Your task to perform on an android device: Search for the best vacuum on Amazon. Image 0: 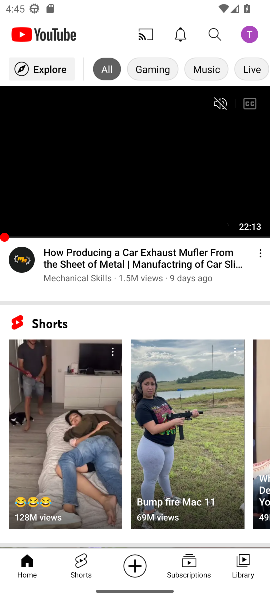
Step 0: press home button
Your task to perform on an android device: Search for the best vacuum on Amazon. Image 1: 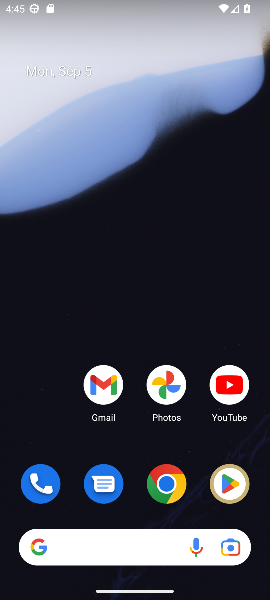
Step 1: click (174, 482)
Your task to perform on an android device: Search for the best vacuum on Amazon. Image 2: 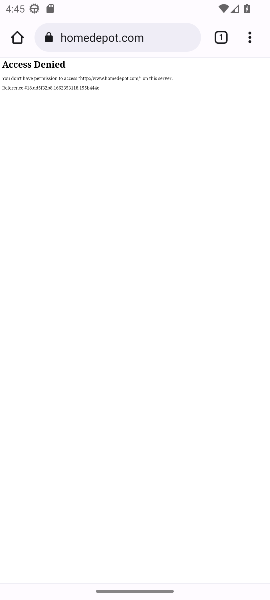
Step 2: click (158, 35)
Your task to perform on an android device: Search for the best vacuum on Amazon. Image 3: 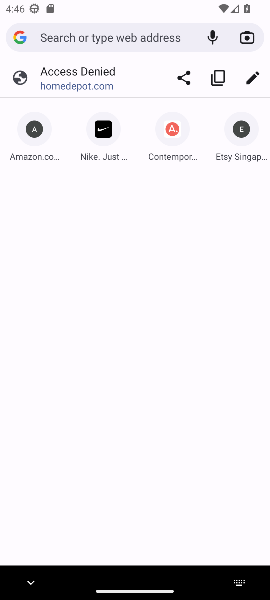
Step 3: type "Amazon"
Your task to perform on an android device: Search for the best vacuum on Amazon. Image 4: 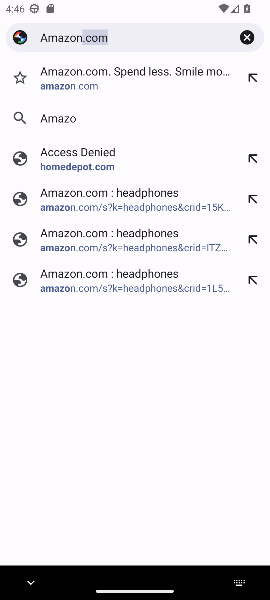
Step 4: press enter
Your task to perform on an android device: Search for the best vacuum on Amazon. Image 5: 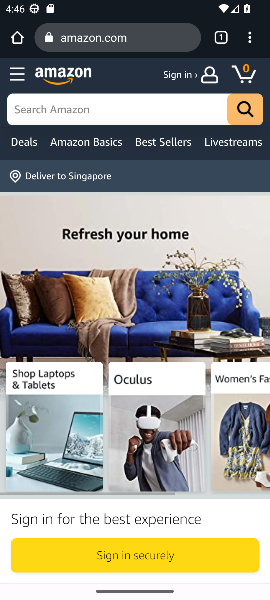
Step 5: click (99, 111)
Your task to perform on an android device: Search for the best vacuum on Amazon. Image 6: 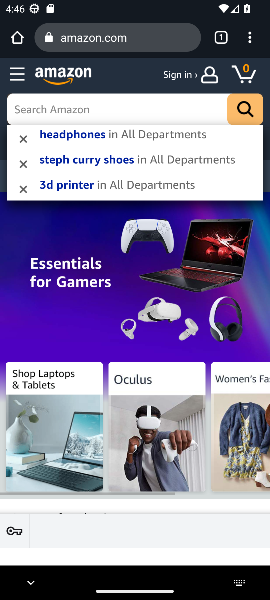
Step 6: type "vacuum"
Your task to perform on an android device: Search for the best vacuum on Amazon. Image 7: 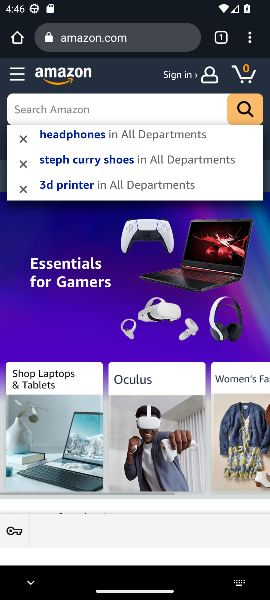
Step 7: press enter
Your task to perform on an android device: Search for the best vacuum on Amazon. Image 8: 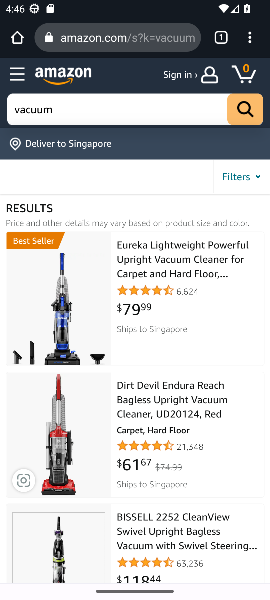
Step 8: drag from (169, 538) to (210, 201)
Your task to perform on an android device: Search for the best vacuum on Amazon. Image 9: 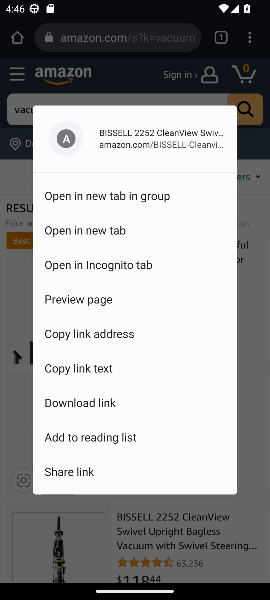
Step 9: click (263, 377)
Your task to perform on an android device: Search for the best vacuum on Amazon. Image 10: 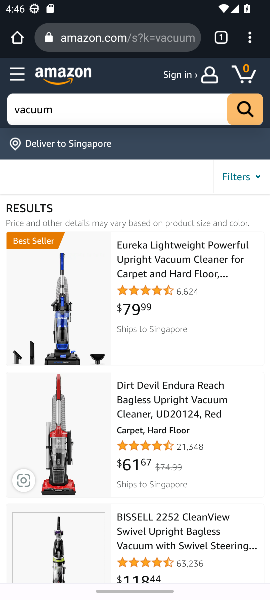
Step 10: task complete